Your task to perform on an android device: Show me recent news Image 0: 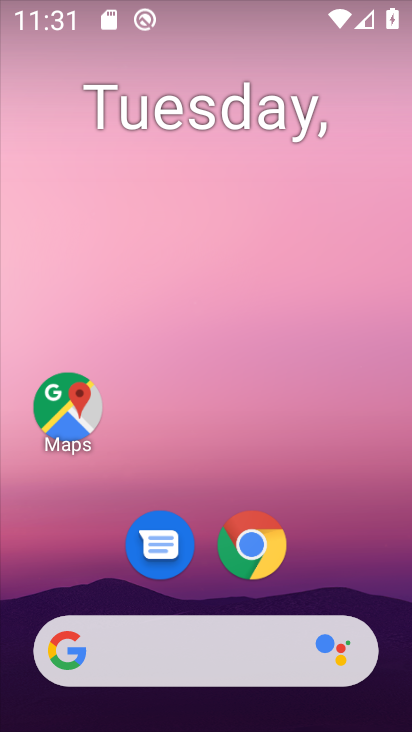
Step 0: click (66, 639)
Your task to perform on an android device: Show me recent news Image 1: 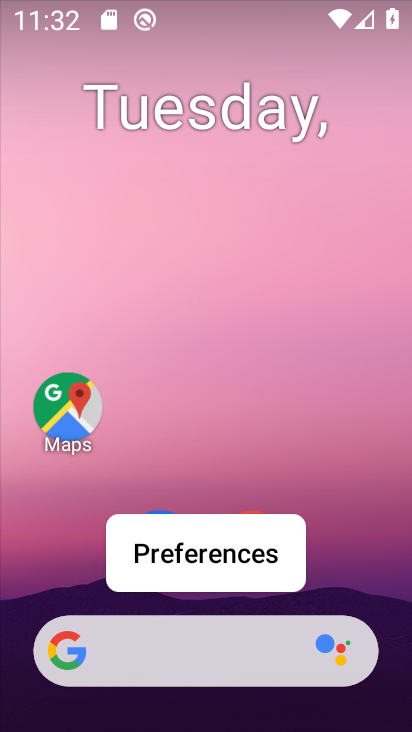
Step 1: click (66, 636)
Your task to perform on an android device: Show me recent news Image 2: 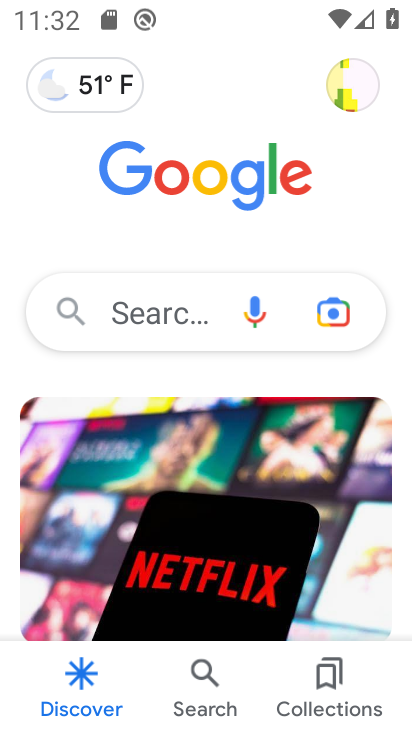
Step 2: task complete